Your task to perform on an android device: Open Yahoo.com Image 0: 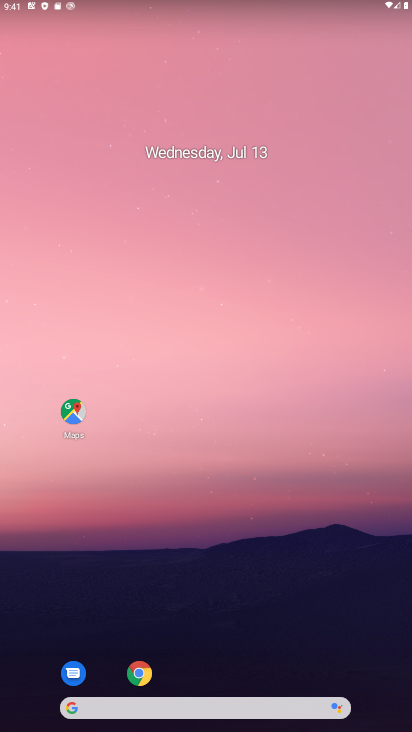
Step 0: click (145, 664)
Your task to perform on an android device: Open Yahoo.com Image 1: 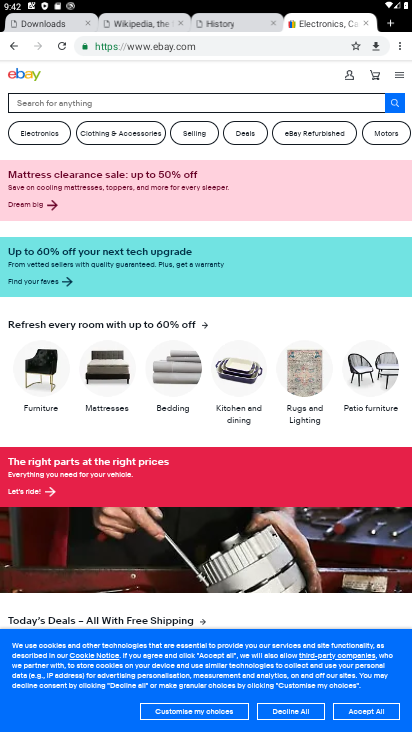
Step 1: click (388, 25)
Your task to perform on an android device: Open Yahoo.com Image 2: 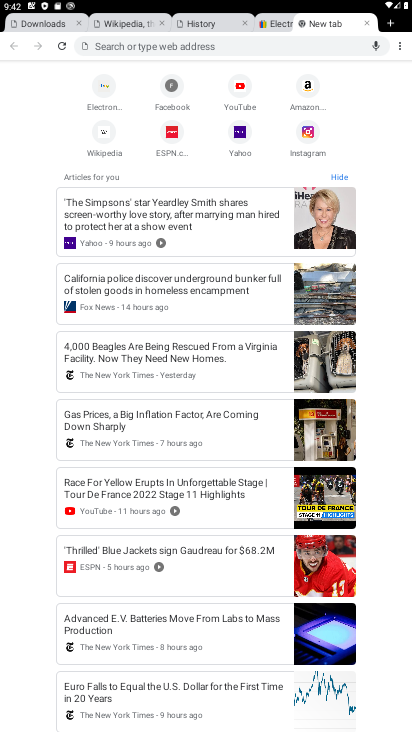
Step 2: task complete